Your task to perform on an android device: Play the last video I watched on Youtube Image 0: 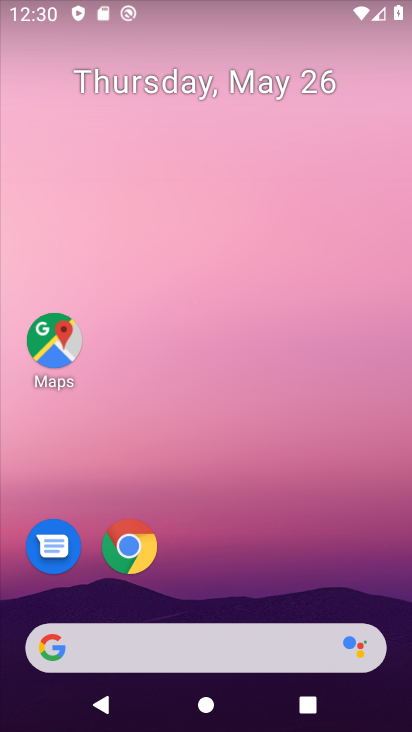
Step 0: drag from (403, 619) to (310, 37)
Your task to perform on an android device: Play the last video I watched on Youtube Image 1: 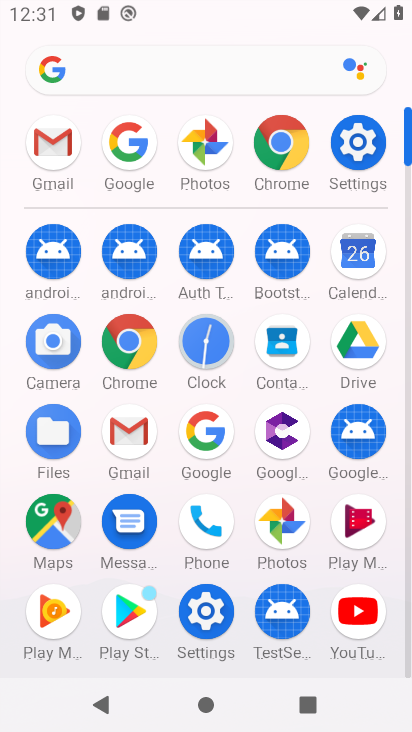
Step 1: click (344, 615)
Your task to perform on an android device: Play the last video I watched on Youtube Image 2: 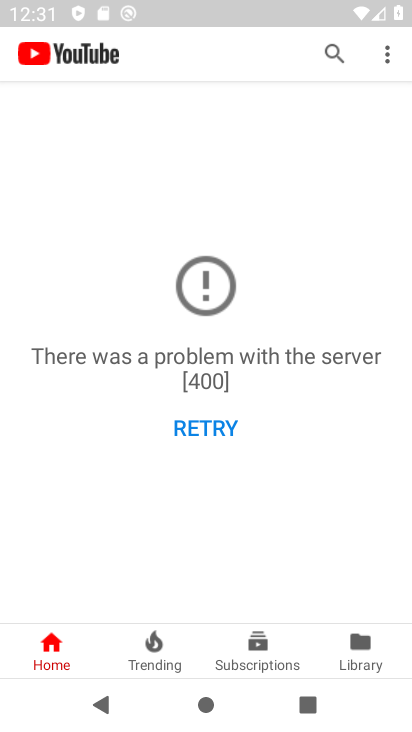
Step 2: task complete